Your task to perform on an android device: Open Wikipedia Image 0: 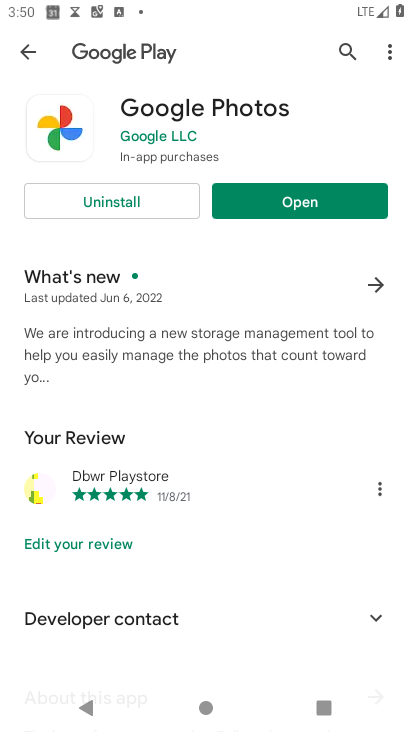
Step 0: press home button
Your task to perform on an android device: Open Wikipedia Image 1: 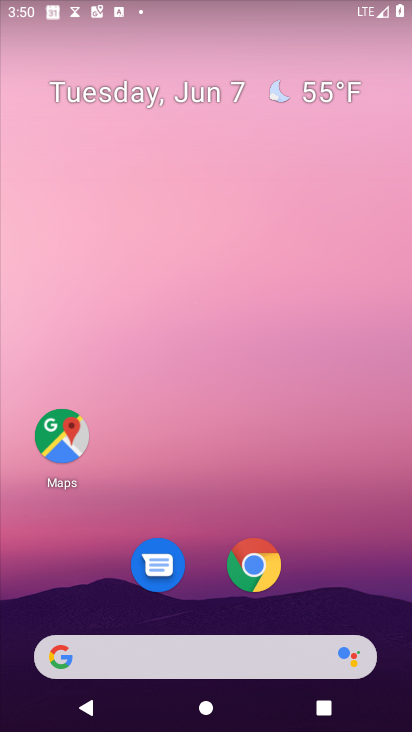
Step 1: drag from (294, 665) to (270, 132)
Your task to perform on an android device: Open Wikipedia Image 2: 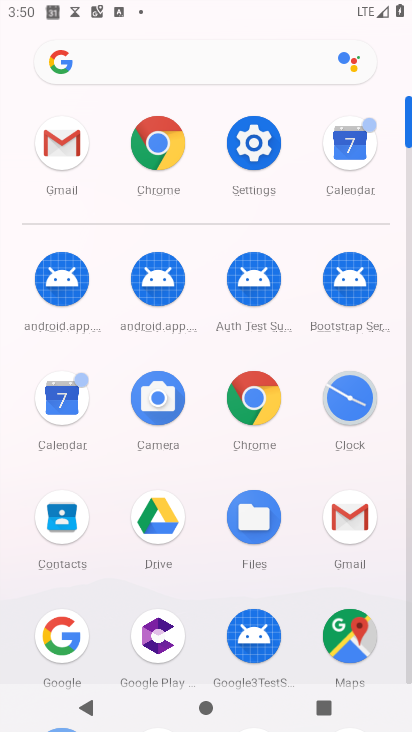
Step 2: click (254, 397)
Your task to perform on an android device: Open Wikipedia Image 3: 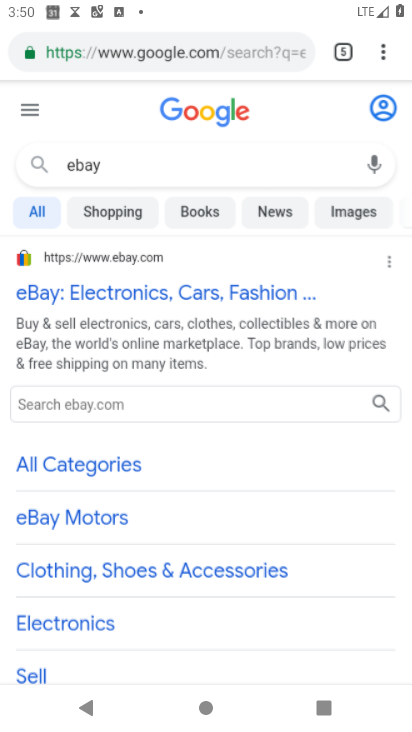
Step 3: click (379, 61)
Your task to perform on an android device: Open Wikipedia Image 4: 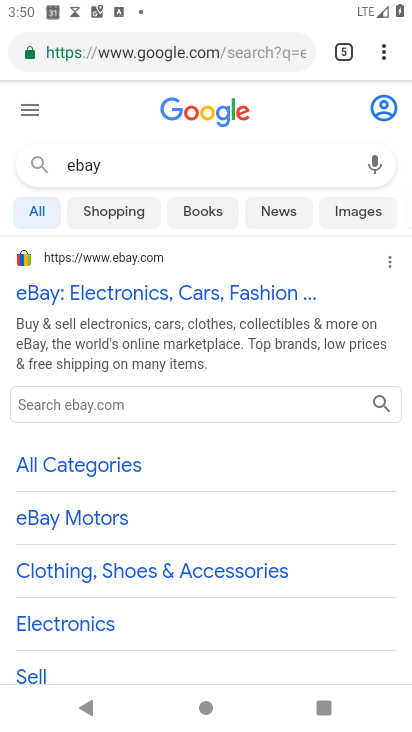
Step 4: task complete